Your task to perform on an android device: Go to Android settings Image 0: 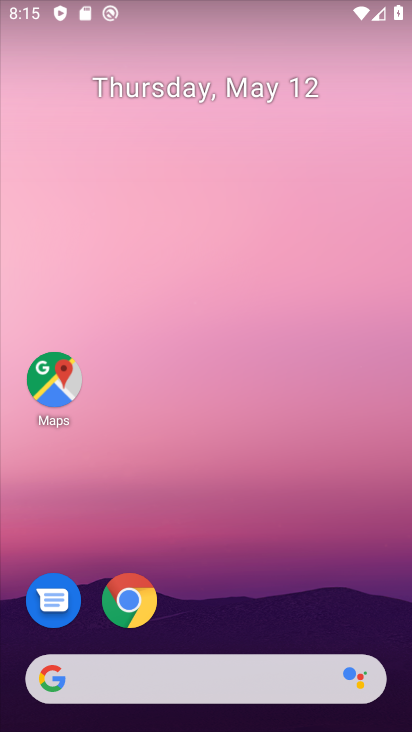
Step 0: drag from (286, 603) to (349, 5)
Your task to perform on an android device: Go to Android settings Image 1: 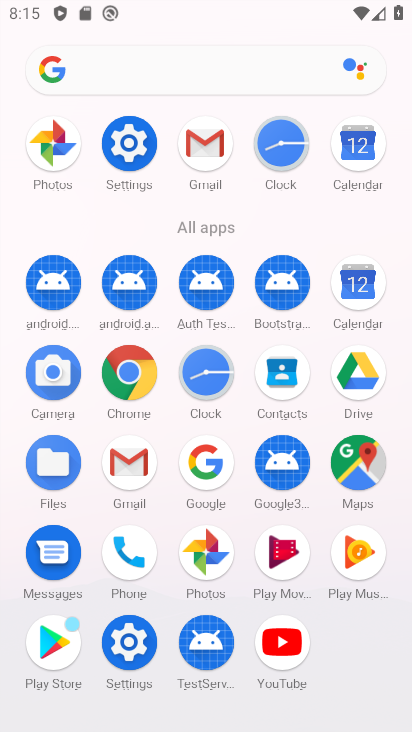
Step 1: click (125, 142)
Your task to perform on an android device: Go to Android settings Image 2: 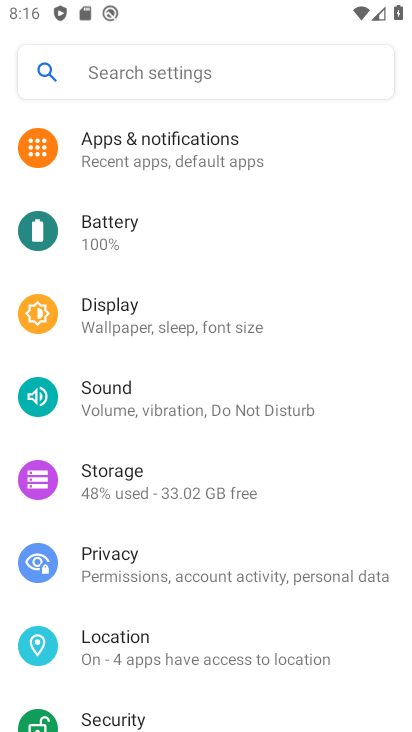
Step 2: drag from (220, 544) to (174, 158)
Your task to perform on an android device: Go to Android settings Image 3: 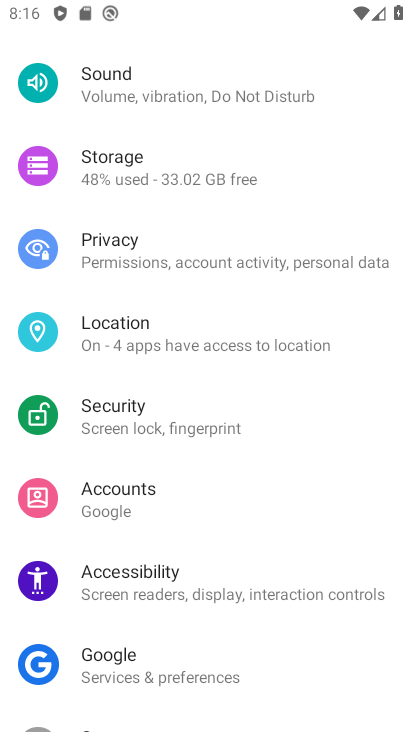
Step 3: drag from (163, 585) to (149, 213)
Your task to perform on an android device: Go to Android settings Image 4: 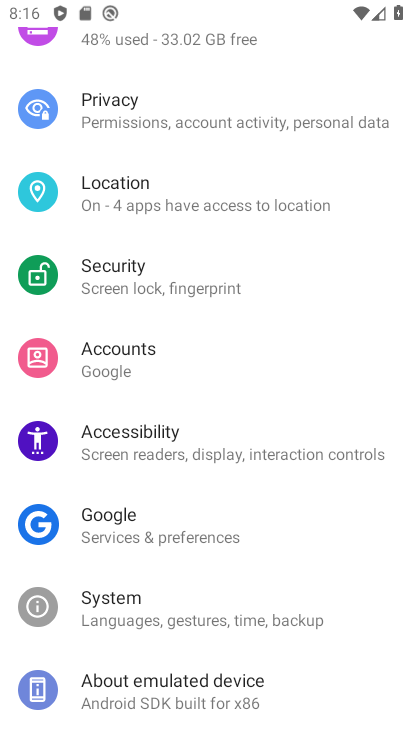
Step 4: drag from (201, 673) to (187, 288)
Your task to perform on an android device: Go to Android settings Image 5: 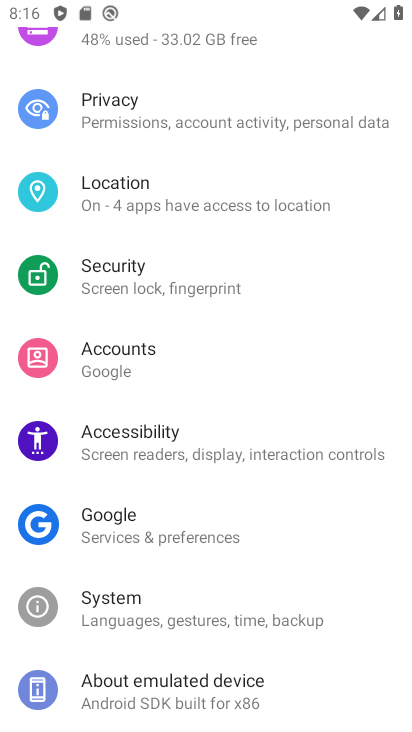
Step 5: click (195, 702)
Your task to perform on an android device: Go to Android settings Image 6: 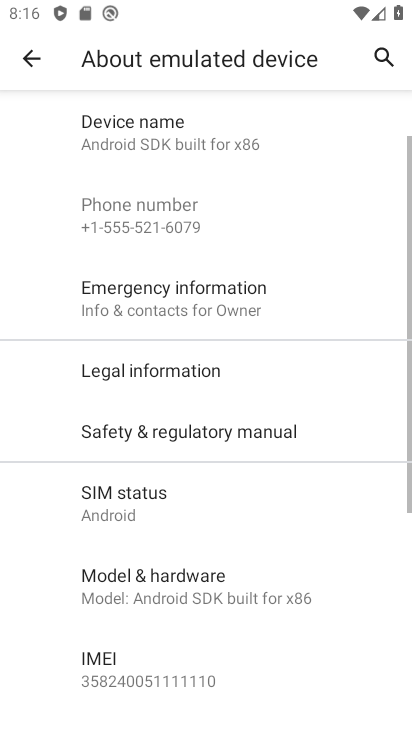
Step 6: task complete